Your task to perform on an android device: Go to Android settings Image 0: 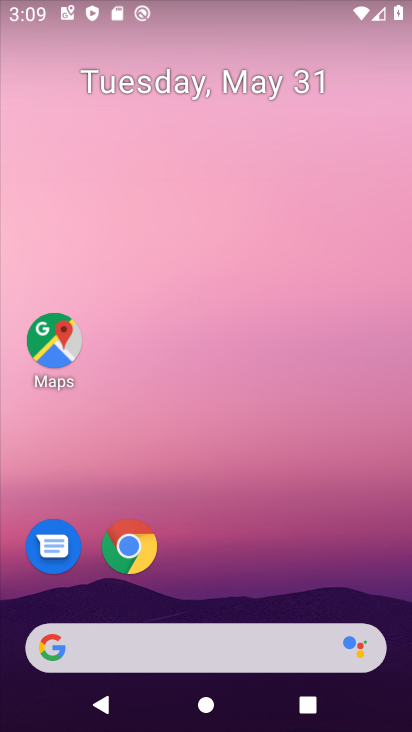
Step 0: drag from (229, 562) to (225, 81)
Your task to perform on an android device: Go to Android settings Image 1: 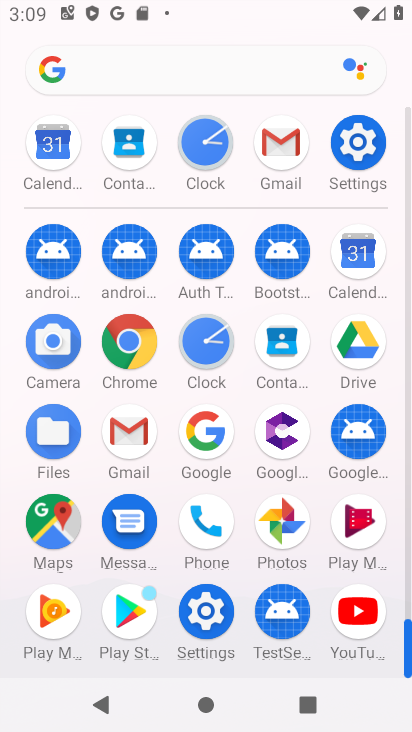
Step 1: click (364, 138)
Your task to perform on an android device: Go to Android settings Image 2: 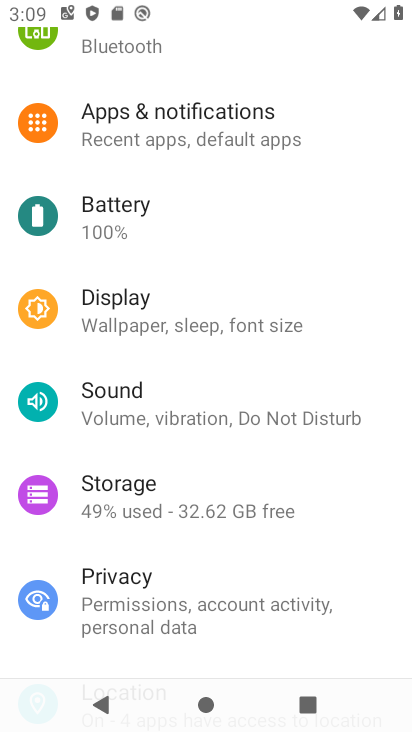
Step 2: drag from (228, 553) to (248, 25)
Your task to perform on an android device: Go to Android settings Image 3: 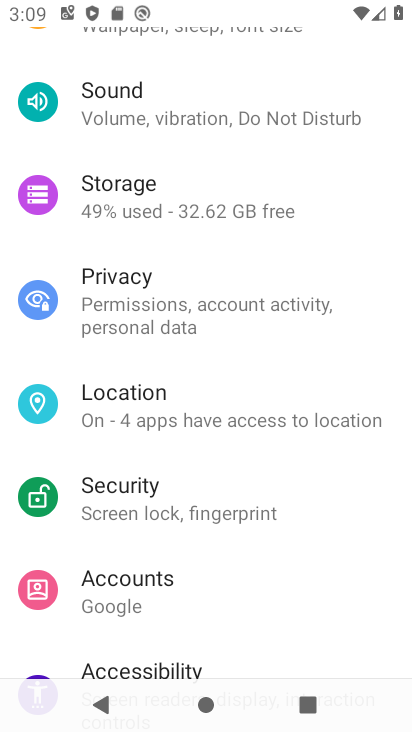
Step 3: drag from (222, 565) to (250, 131)
Your task to perform on an android device: Go to Android settings Image 4: 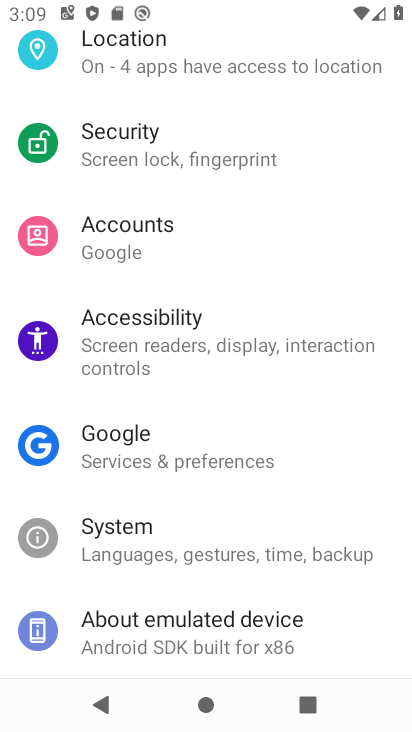
Step 4: click (231, 620)
Your task to perform on an android device: Go to Android settings Image 5: 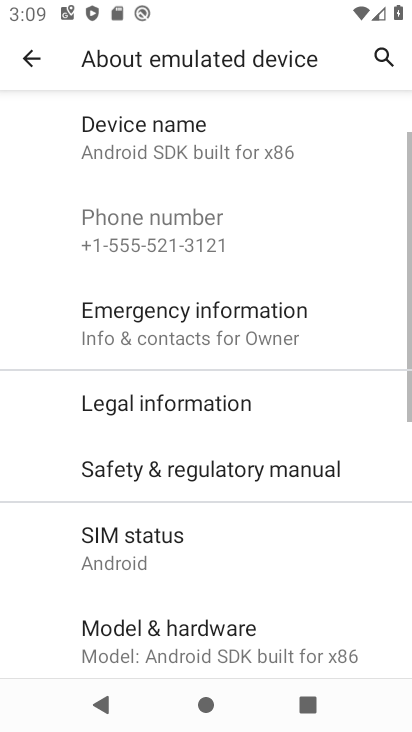
Step 5: task complete